Your task to perform on an android device: change alarm snooze length Image 0: 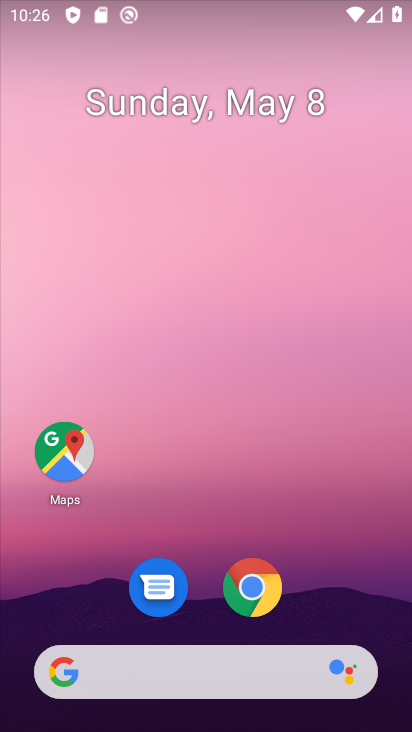
Step 0: drag from (367, 573) to (229, 110)
Your task to perform on an android device: change alarm snooze length Image 1: 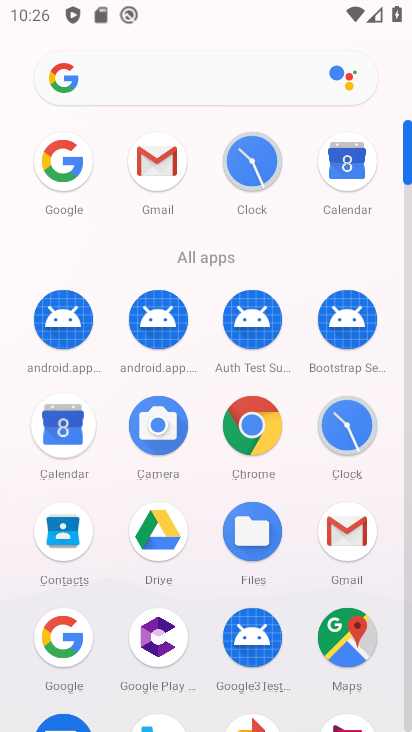
Step 1: click (352, 438)
Your task to perform on an android device: change alarm snooze length Image 2: 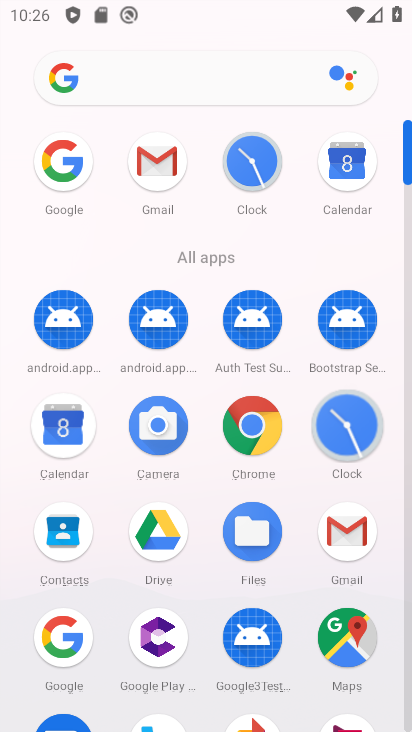
Step 2: click (352, 438)
Your task to perform on an android device: change alarm snooze length Image 3: 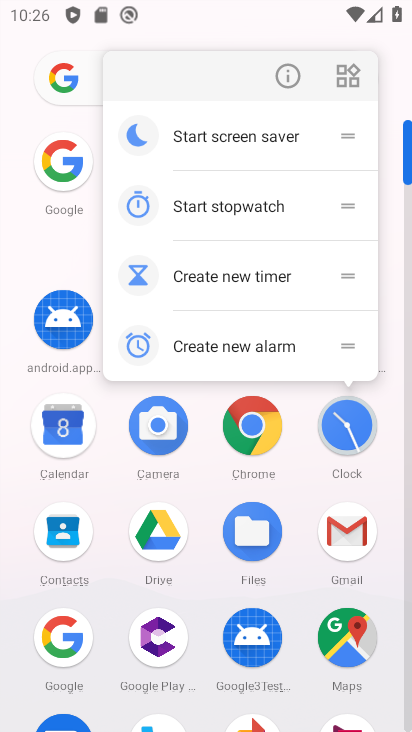
Step 3: click (337, 425)
Your task to perform on an android device: change alarm snooze length Image 4: 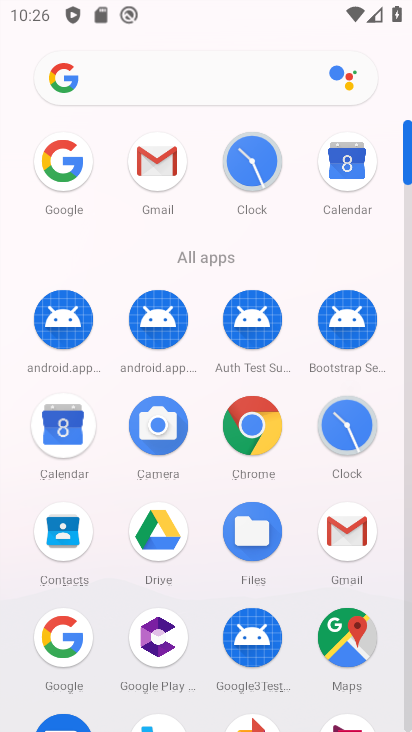
Step 4: click (337, 425)
Your task to perform on an android device: change alarm snooze length Image 5: 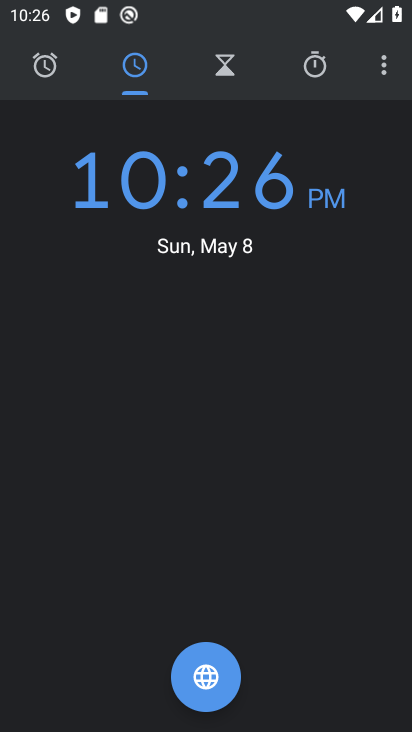
Step 5: click (339, 425)
Your task to perform on an android device: change alarm snooze length Image 6: 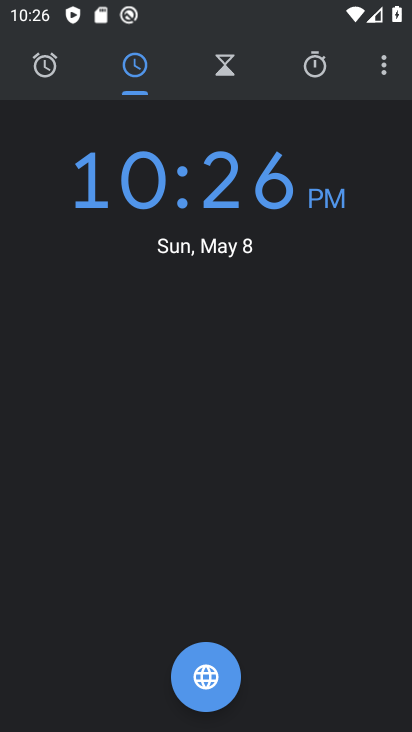
Step 6: click (379, 64)
Your task to perform on an android device: change alarm snooze length Image 7: 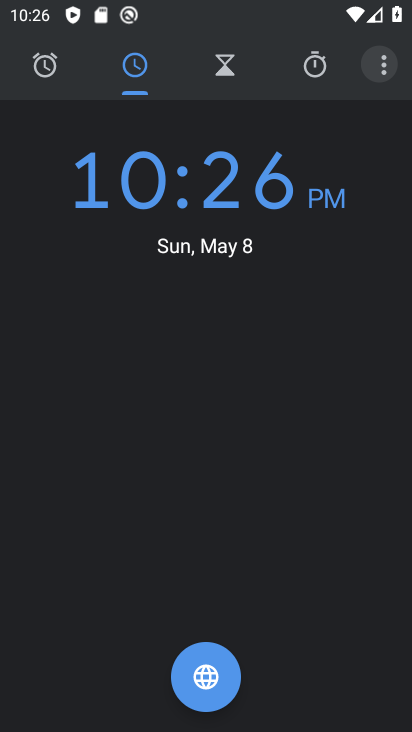
Step 7: click (379, 64)
Your task to perform on an android device: change alarm snooze length Image 8: 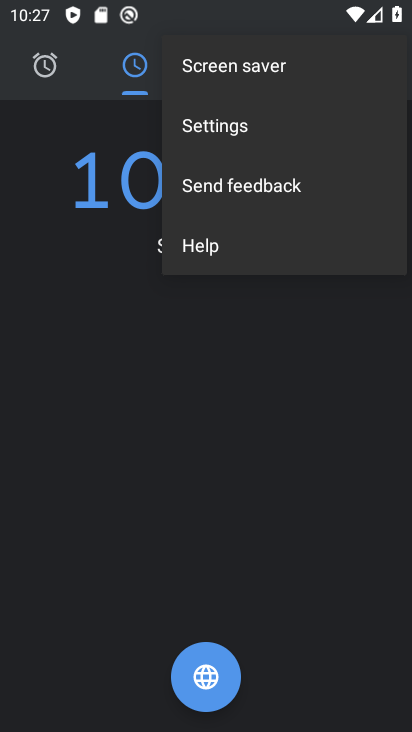
Step 8: click (244, 121)
Your task to perform on an android device: change alarm snooze length Image 9: 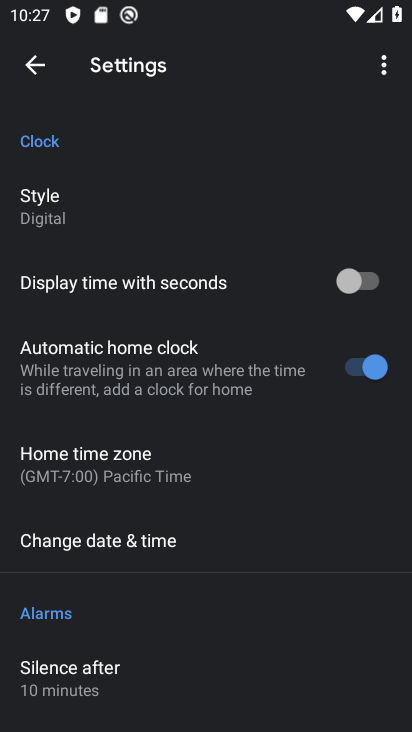
Step 9: drag from (211, 611) to (218, 73)
Your task to perform on an android device: change alarm snooze length Image 10: 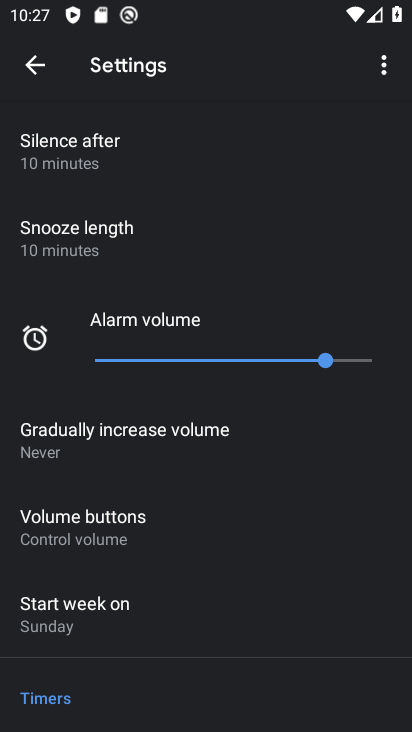
Step 10: click (48, 235)
Your task to perform on an android device: change alarm snooze length Image 11: 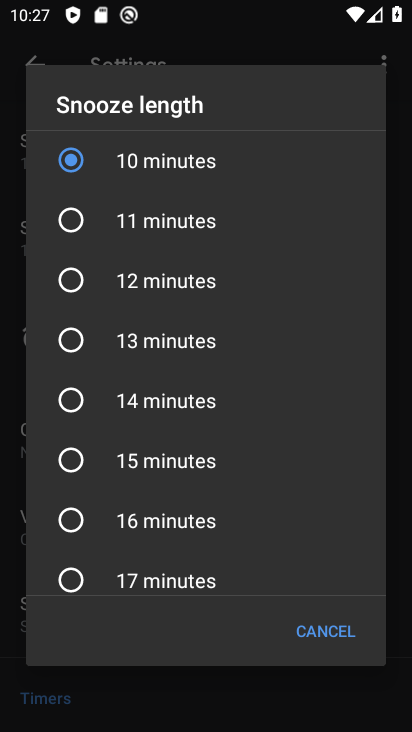
Step 11: click (69, 519)
Your task to perform on an android device: change alarm snooze length Image 12: 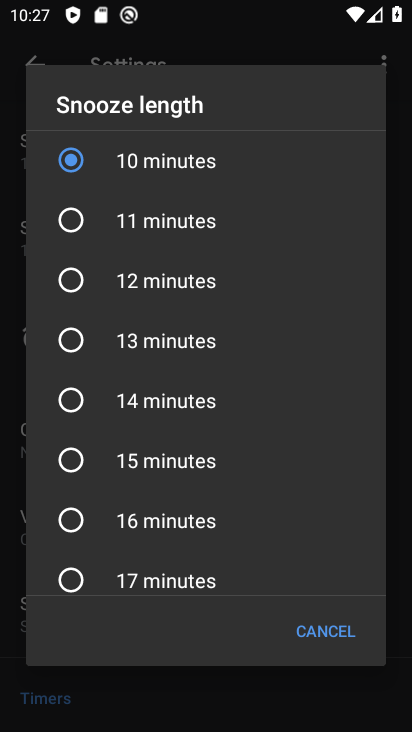
Step 12: click (69, 520)
Your task to perform on an android device: change alarm snooze length Image 13: 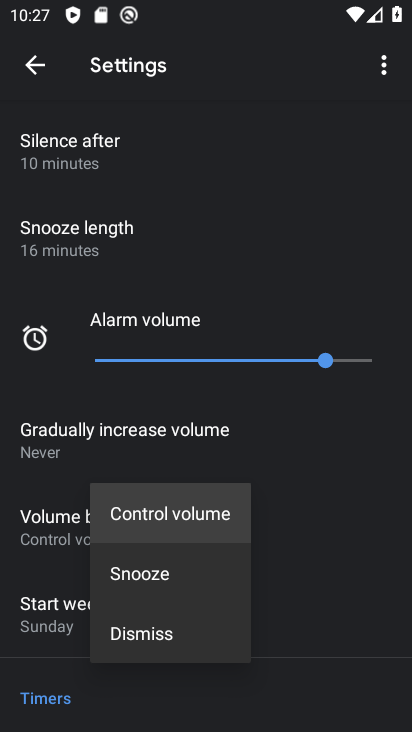
Step 13: click (298, 489)
Your task to perform on an android device: change alarm snooze length Image 14: 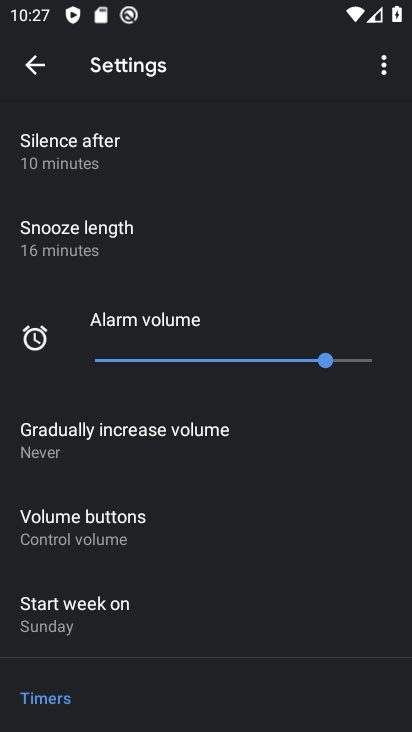
Step 14: click (303, 593)
Your task to perform on an android device: change alarm snooze length Image 15: 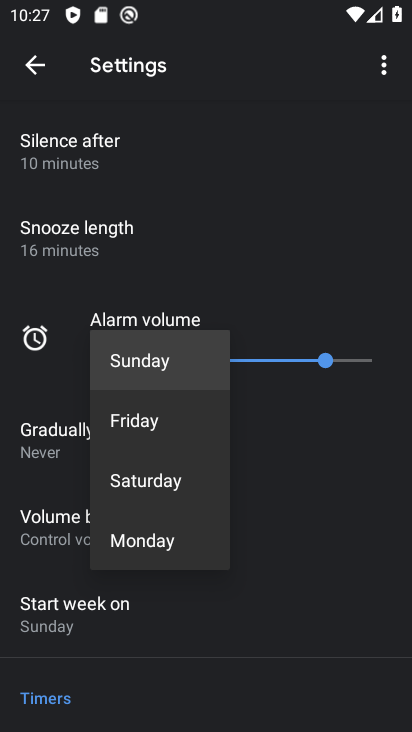
Step 15: task complete